Your task to perform on an android device: toggle airplane mode Image 0: 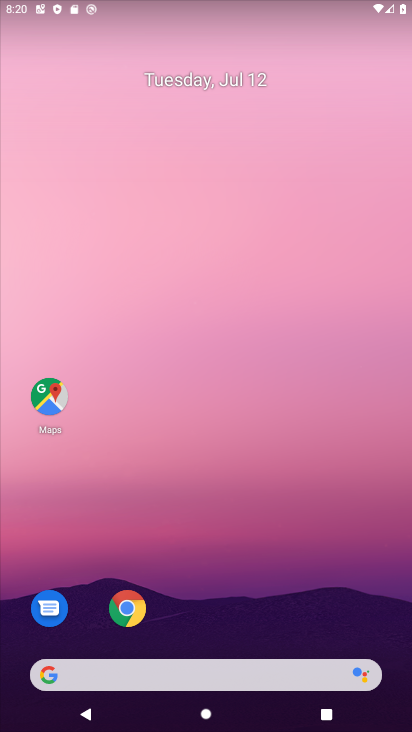
Step 0: drag from (220, 215) to (237, 589)
Your task to perform on an android device: toggle airplane mode Image 1: 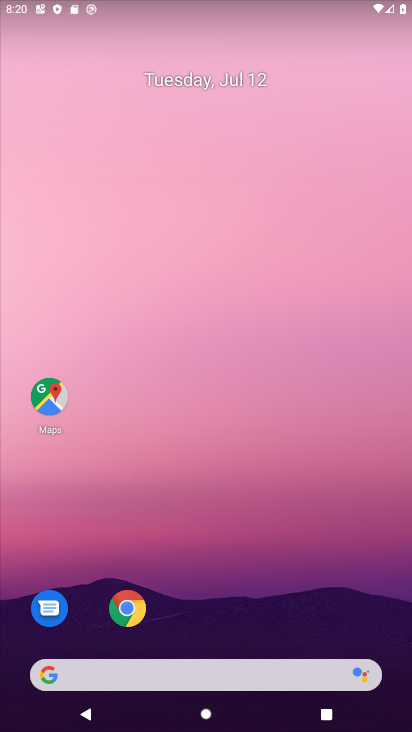
Step 1: drag from (279, 207) to (229, 533)
Your task to perform on an android device: toggle airplane mode Image 2: 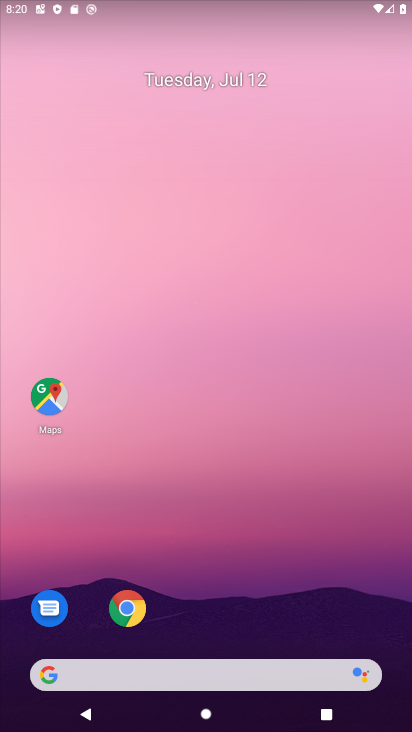
Step 2: drag from (279, 9) to (130, 626)
Your task to perform on an android device: toggle airplane mode Image 3: 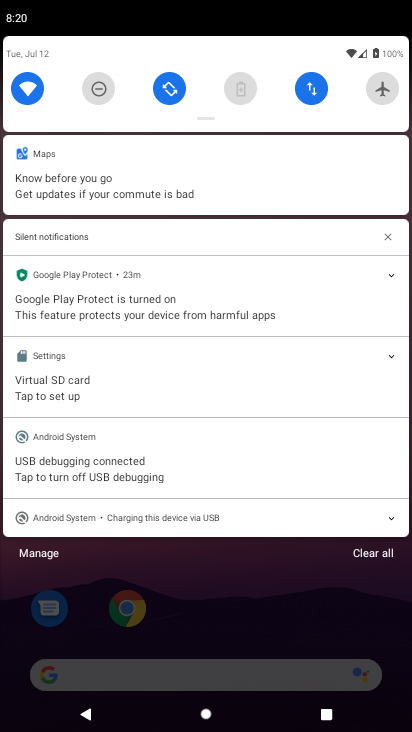
Step 3: click (387, 87)
Your task to perform on an android device: toggle airplane mode Image 4: 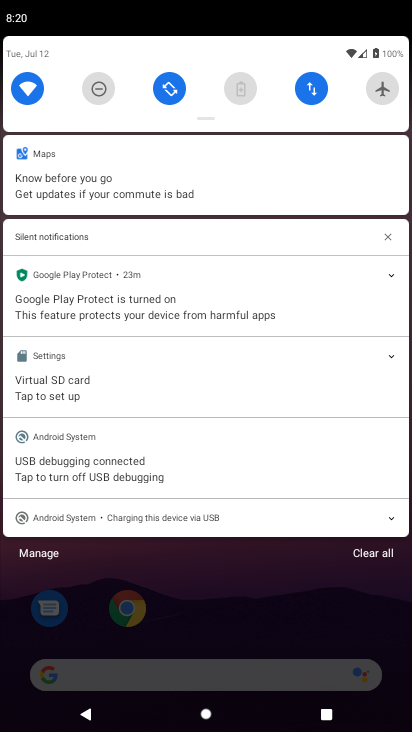
Step 4: click (387, 87)
Your task to perform on an android device: toggle airplane mode Image 5: 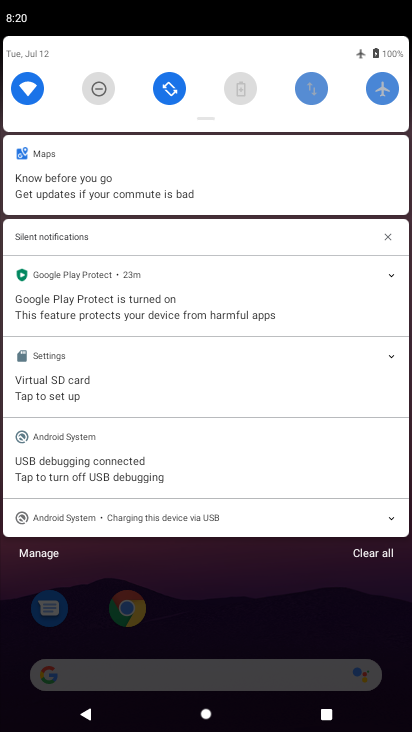
Step 5: click (387, 87)
Your task to perform on an android device: toggle airplane mode Image 6: 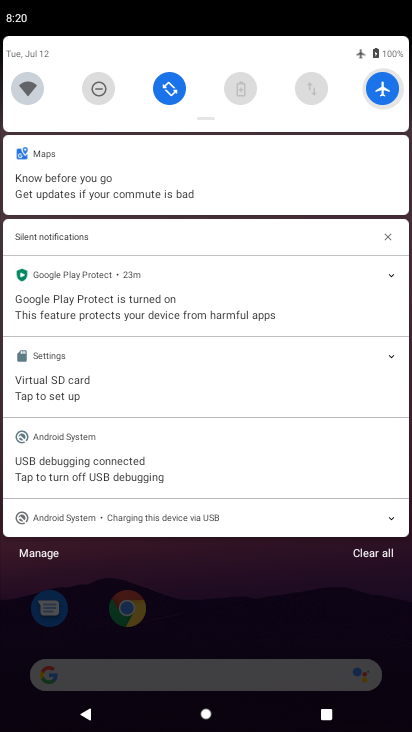
Step 6: click (387, 87)
Your task to perform on an android device: toggle airplane mode Image 7: 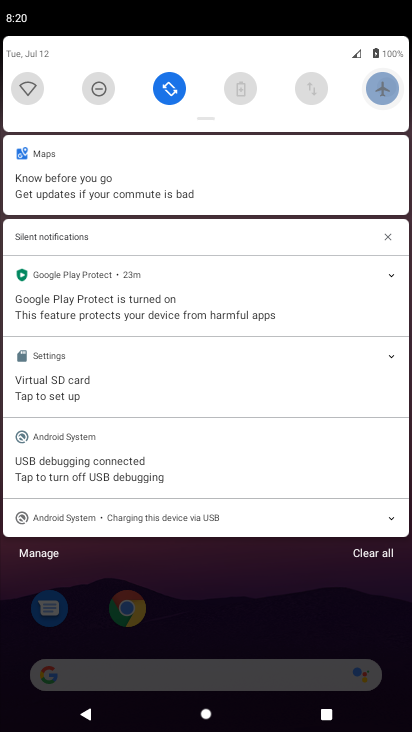
Step 7: click (387, 87)
Your task to perform on an android device: toggle airplane mode Image 8: 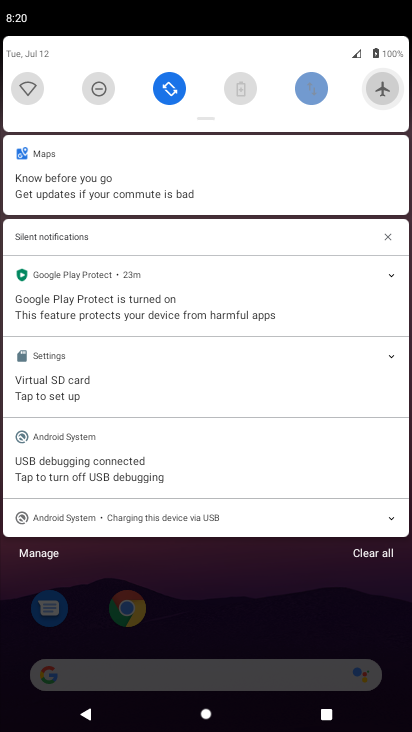
Step 8: click (387, 87)
Your task to perform on an android device: toggle airplane mode Image 9: 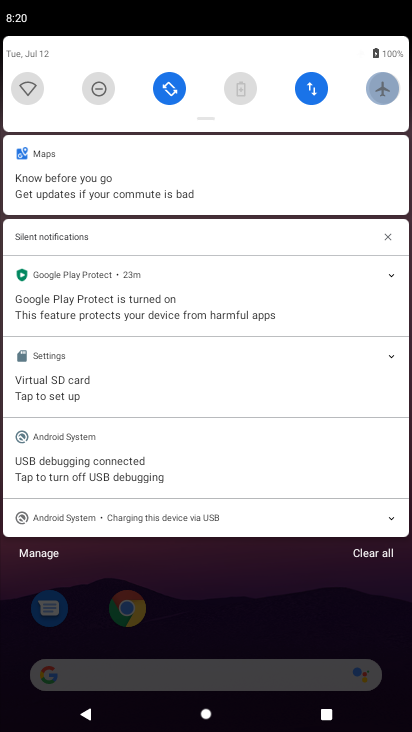
Step 9: click (387, 87)
Your task to perform on an android device: toggle airplane mode Image 10: 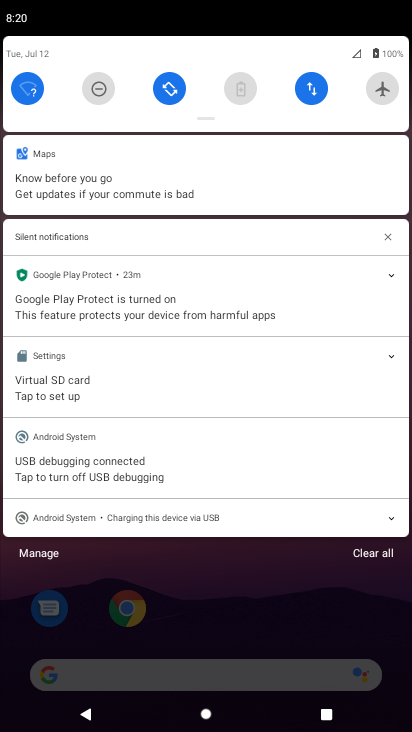
Step 10: task complete